Your task to perform on an android device: toggle javascript in the chrome app Image 0: 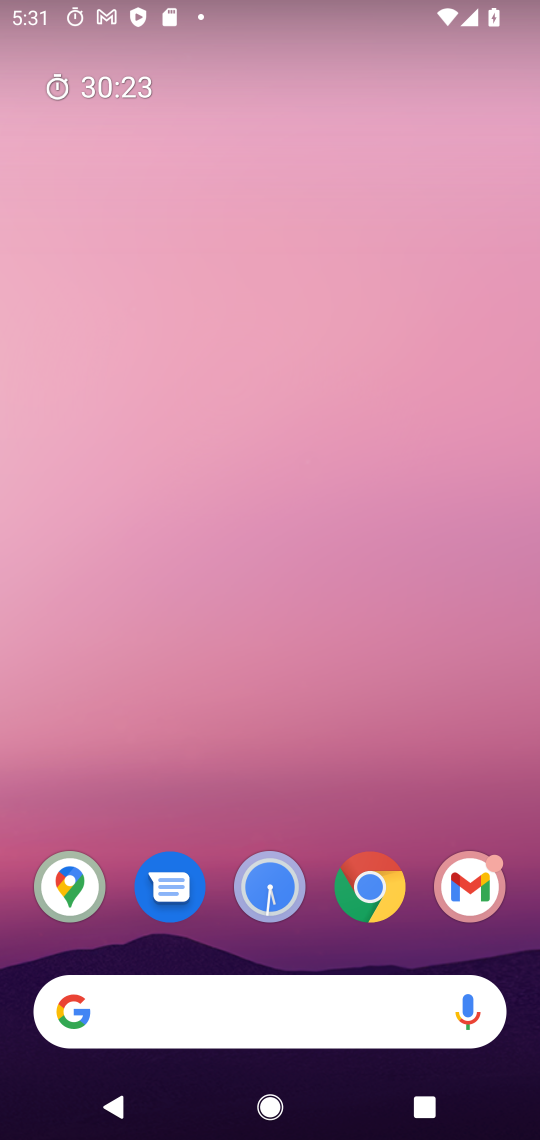
Step 0: click (373, 882)
Your task to perform on an android device: toggle javascript in the chrome app Image 1: 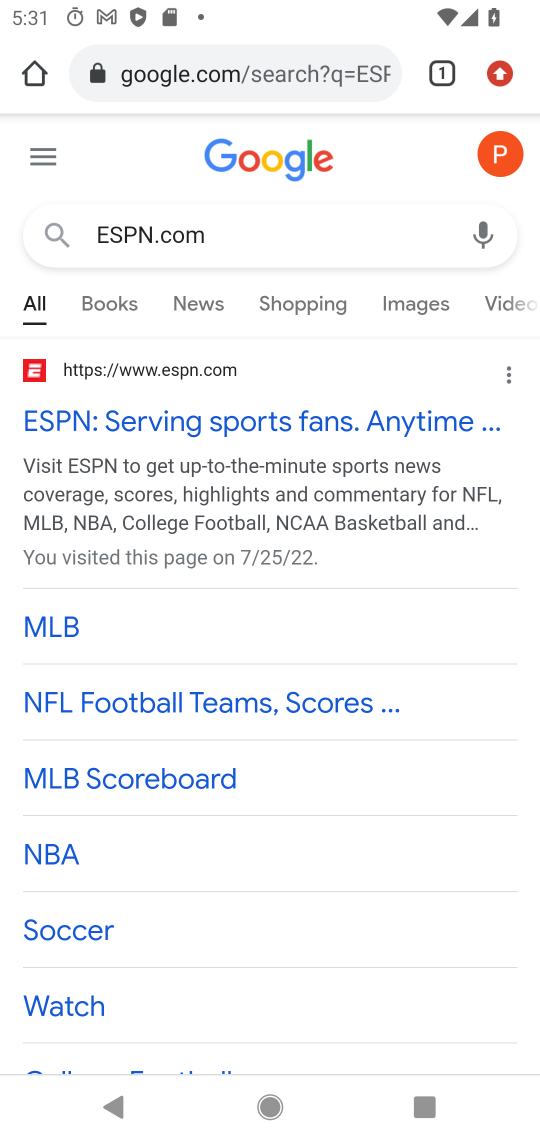
Step 1: click (501, 69)
Your task to perform on an android device: toggle javascript in the chrome app Image 2: 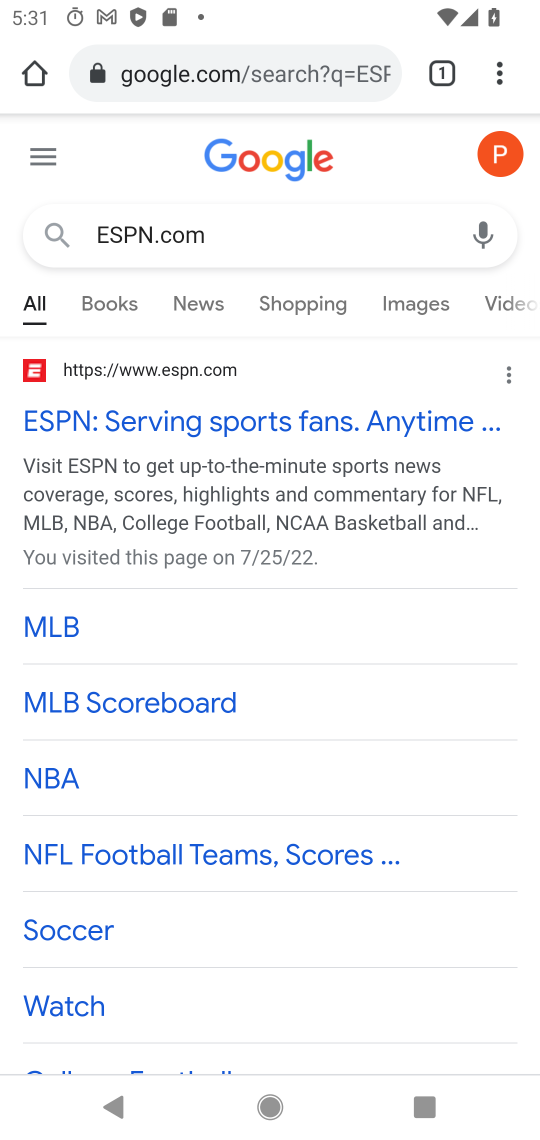
Step 2: click (493, 77)
Your task to perform on an android device: toggle javascript in the chrome app Image 3: 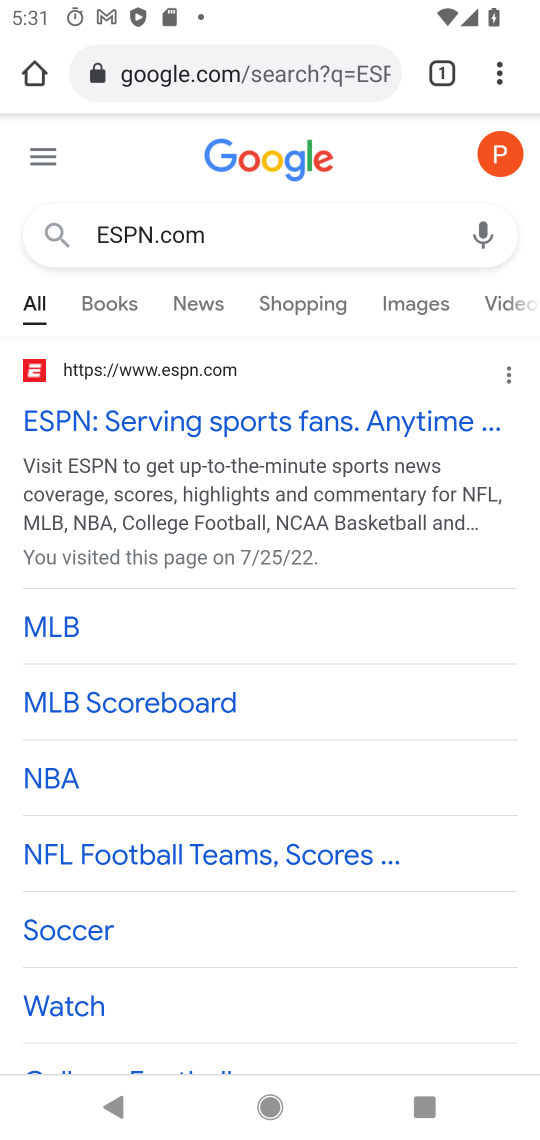
Step 3: click (488, 59)
Your task to perform on an android device: toggle javascript in the chrome app Image 4: 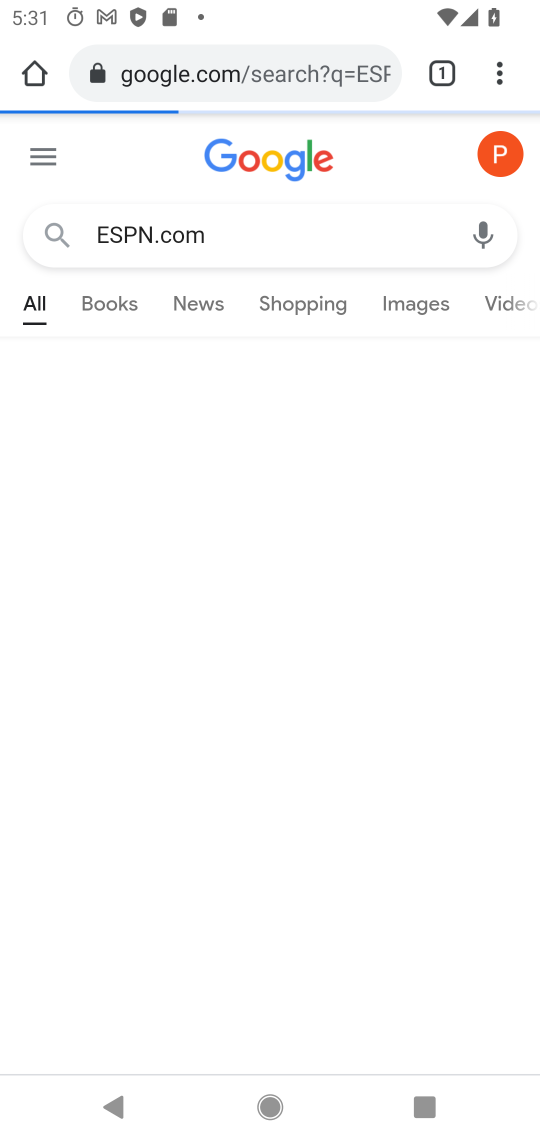
Step 4: click (508, 74)
Your task to perform on an android device: toggle javascript in the chrome app Image 5: 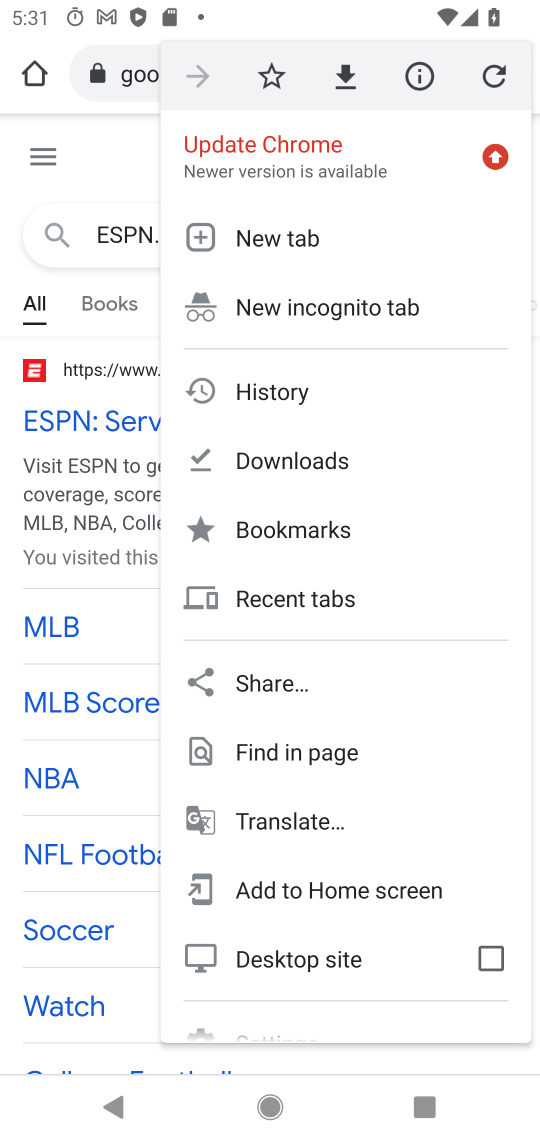
Step 5: drag from (423, 803) to (414, 459)
Your task to perform on an android device: toggle javascript in the chrome app Image 6: 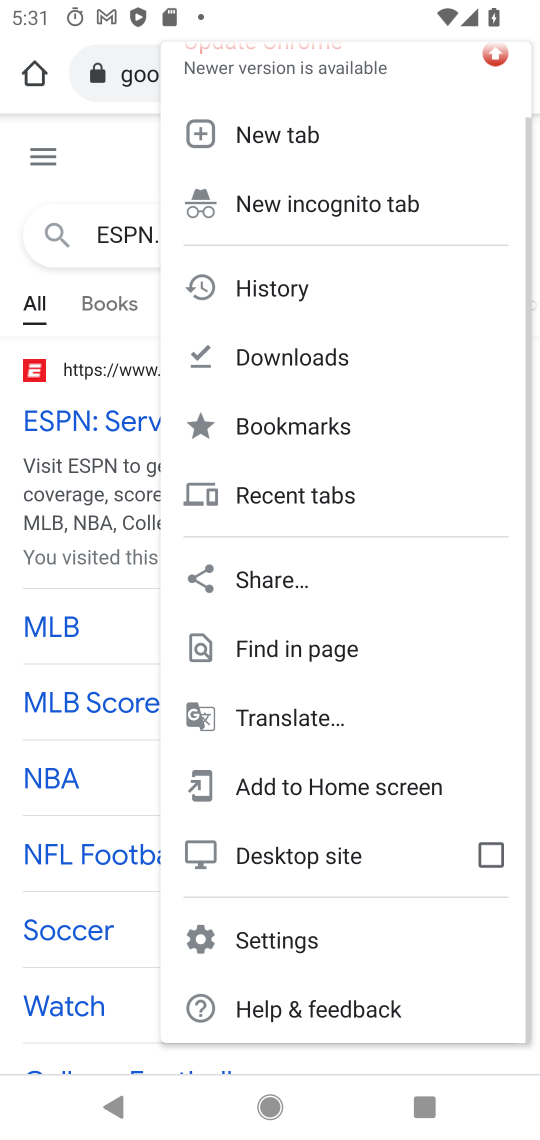
Step 6: click (265, 933)
Your task to perform on an android device: toggle javascript in the chrome app Image 7: 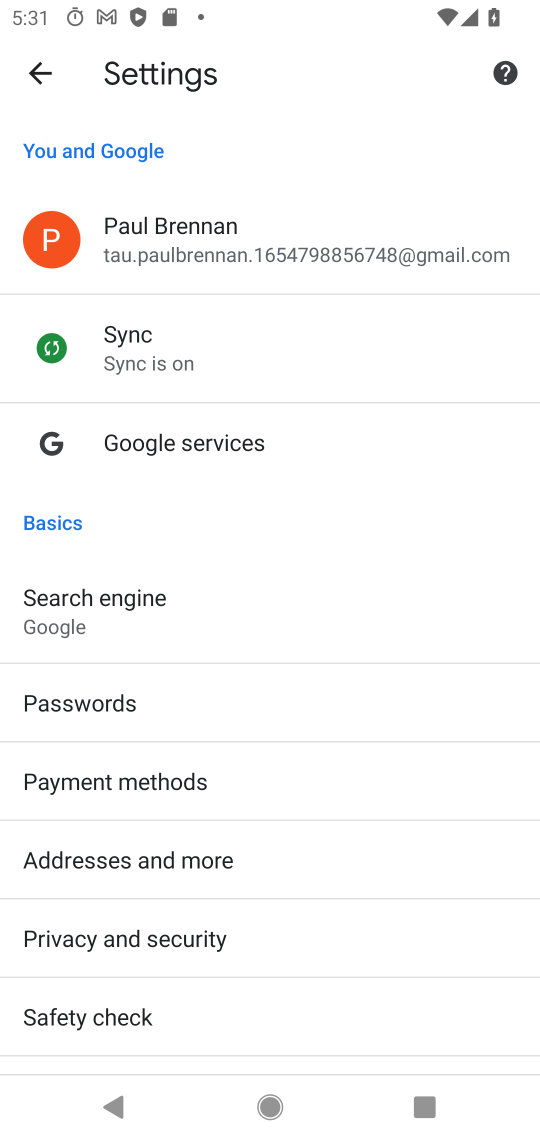
Step 7: drag from (244, 983) to (238, 610)
Your task to perform on an android device: toggle javascript in the chrome app Image 8: 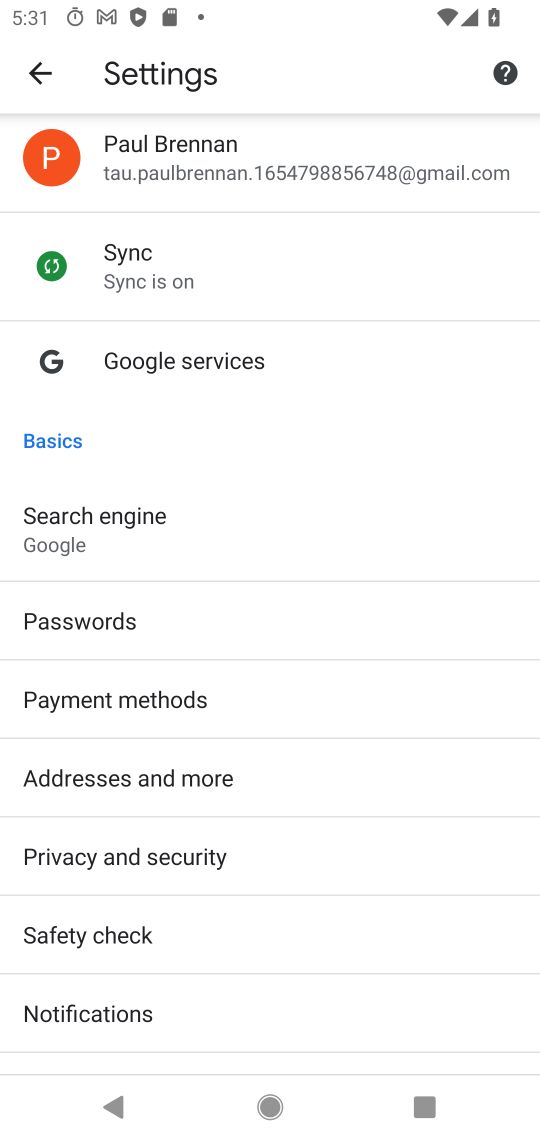
Step 8: drag from (262, 957) to (270, 543)
Your task to perform on an android device: toggle javascript in the chrome app Image 9: 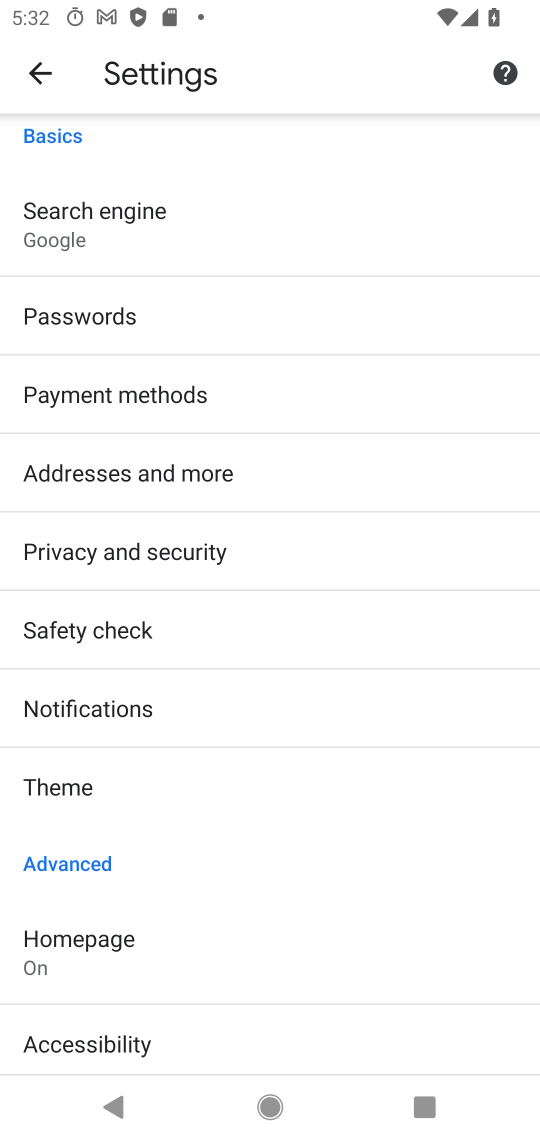
Step 9: drag from (273, 838) to (278, 504)
Your task to perform on an android device: toggle javascript in the chrome app Image 10: 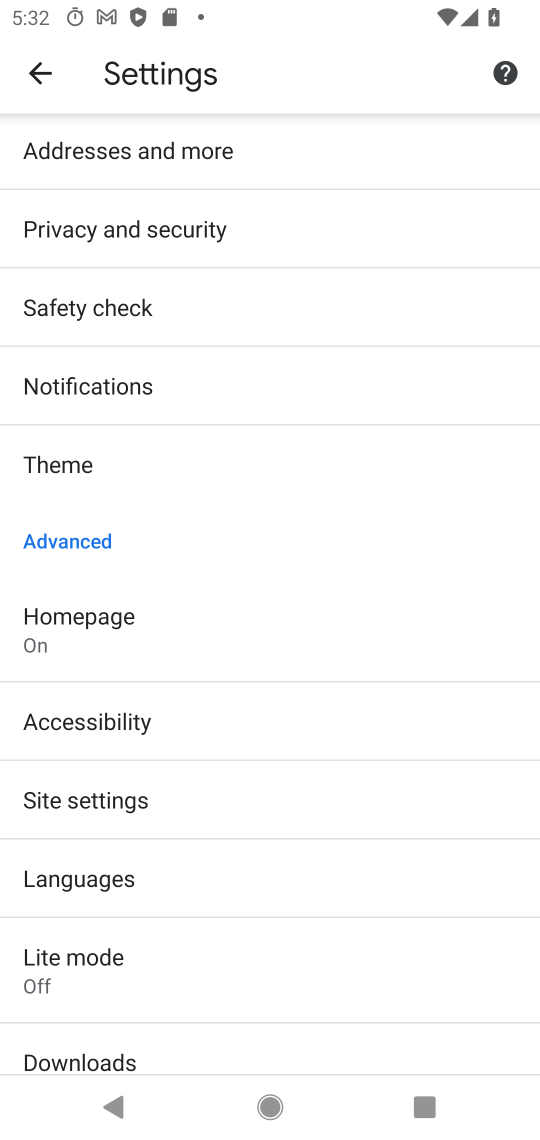
Step 10: drag from (319, 974) to (301, 611)
Your task to perform on an android device: toggle javascript in the chrome app Image 11: 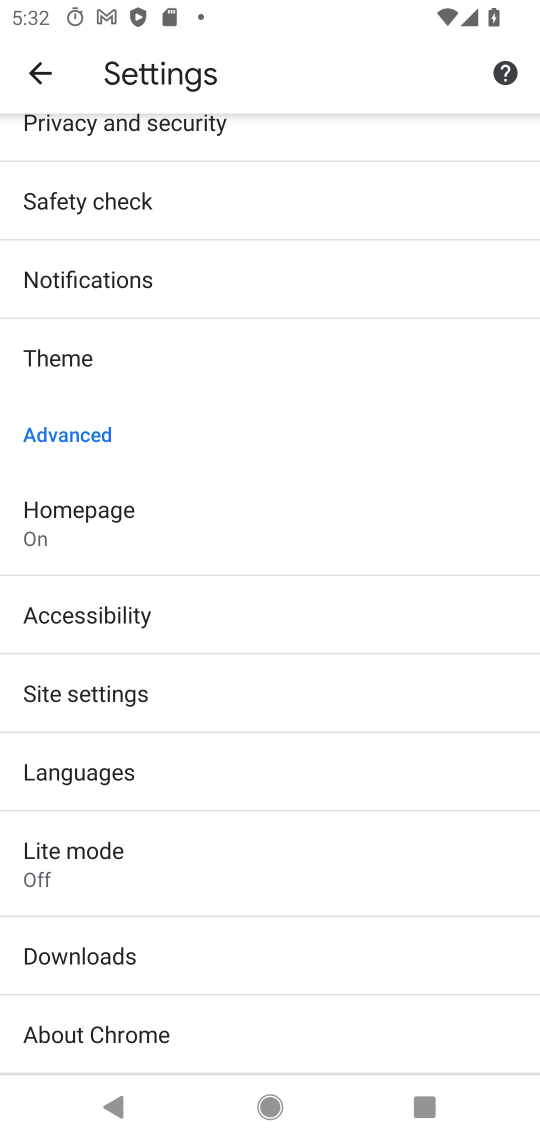
Step 11: click (98, 693)
Your task to perform on an android device: toggle javascript in the chrome app Image 12: 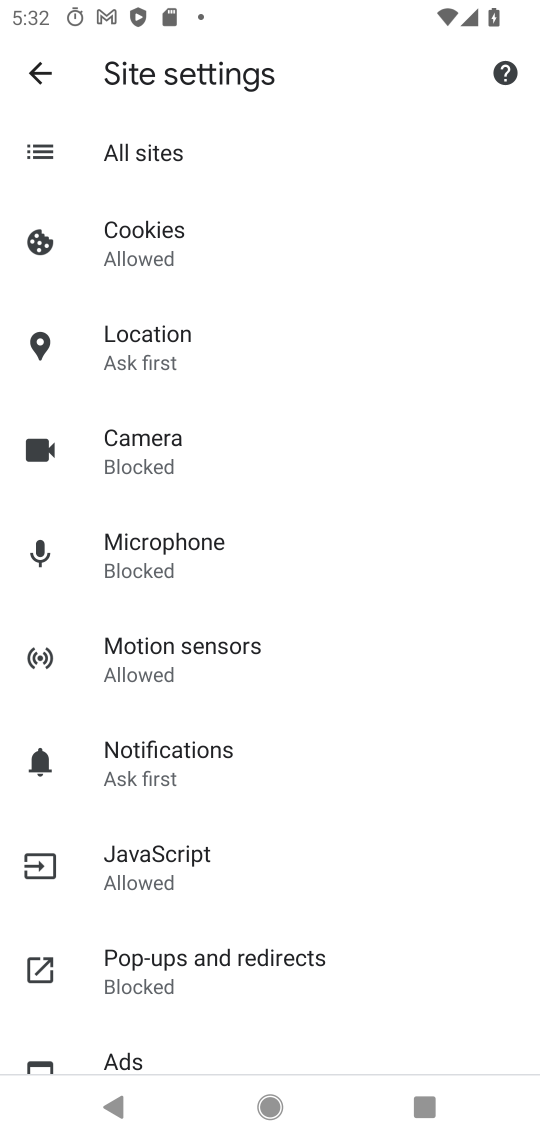
Step 12: click (144, 866)
Your task to perform on an android device: toggle javascript in the chrome app Image 13: 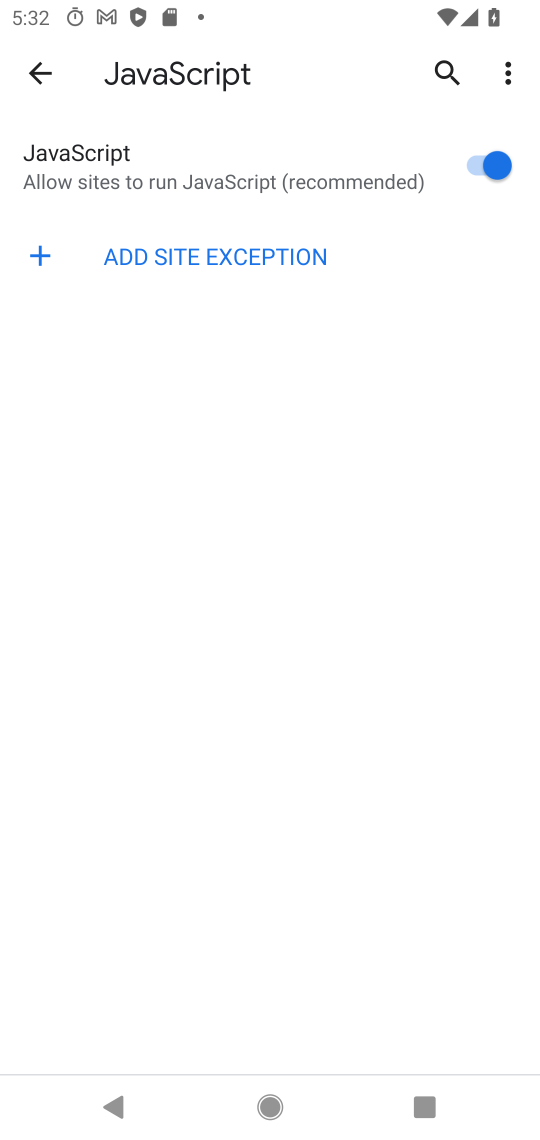
Step 13: click (482, 156)
Your task to perform on an android device: toggle javascript in the chrome app Image 14: 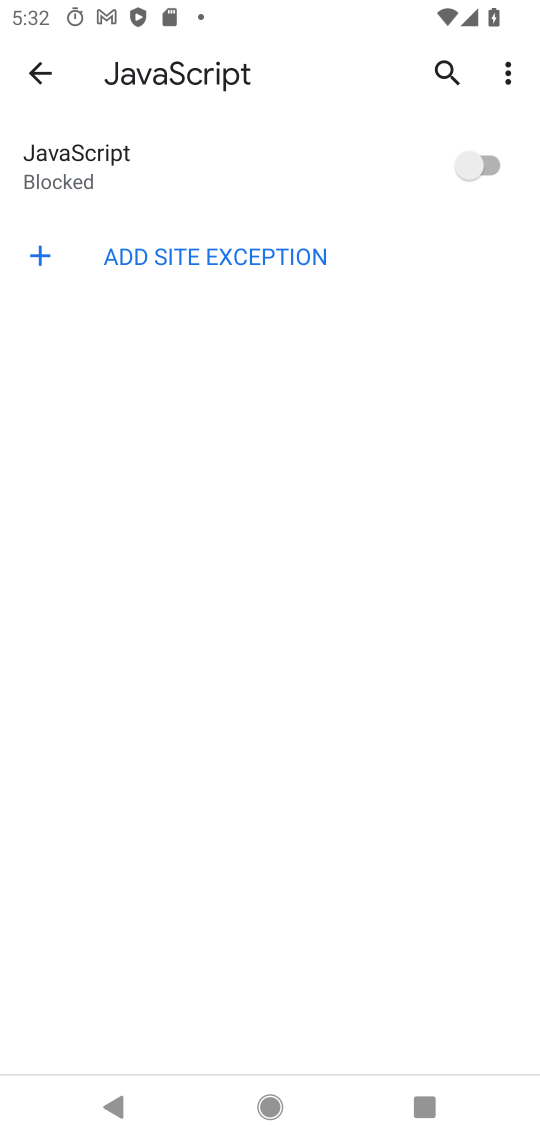
Step 14: task complete